Your task to perform on an android device: toggle wifi Image 0: 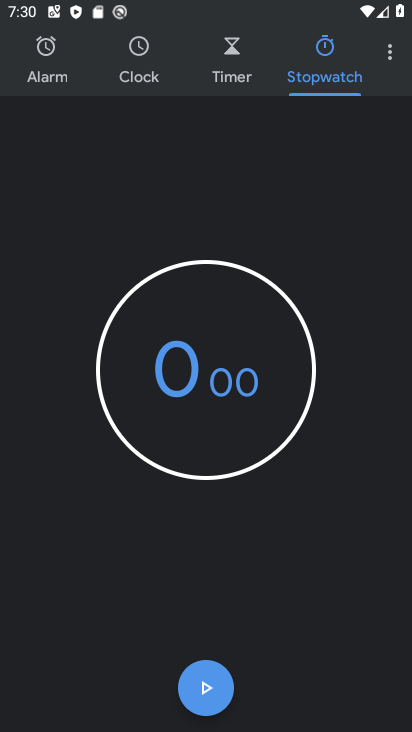
Step 0: press home button
Your task to perform on an android device: toggle wifi Image 1: 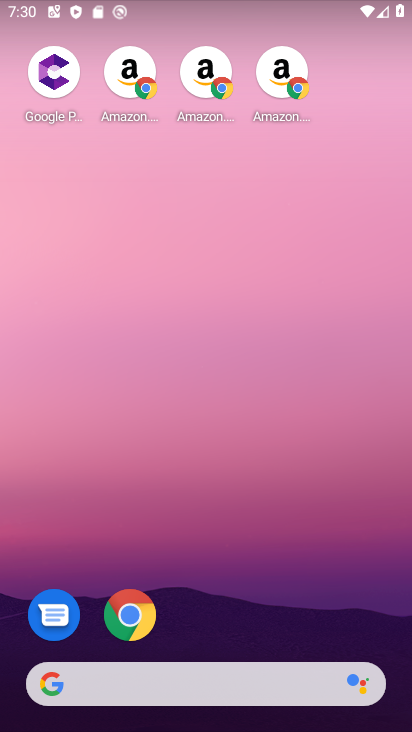
Step 1: drag from (335, 597) to (346, 145)
Your task to perform on an android device: toggle wifi Image 2: 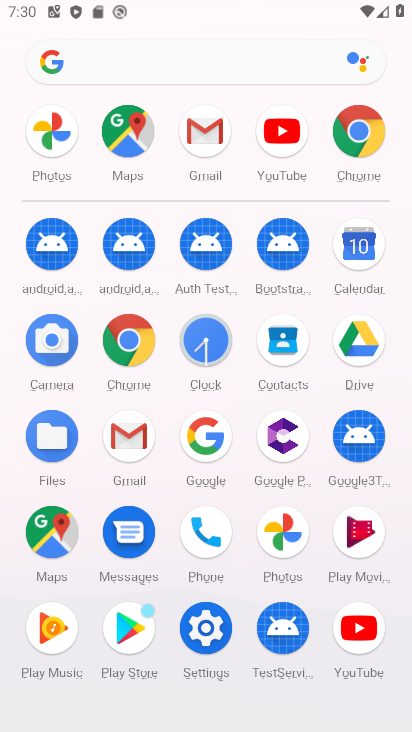
Step 2: click (219, 613)
Your task to perform on an android device: toggle wifi Image 3: 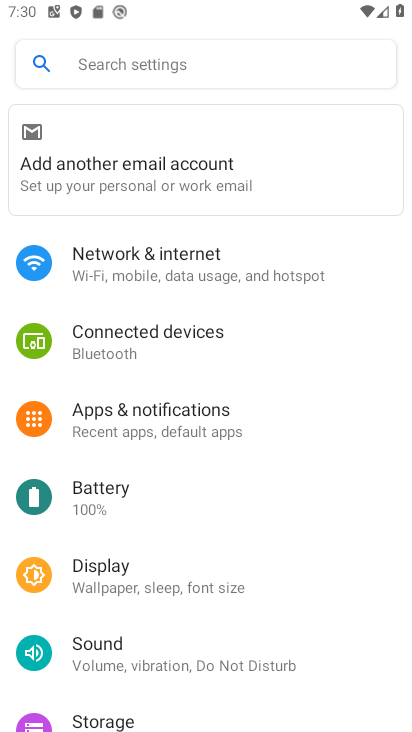
Step 3: click (99, 268)
Your task to perform on an android device: toggle wifi Image 4: 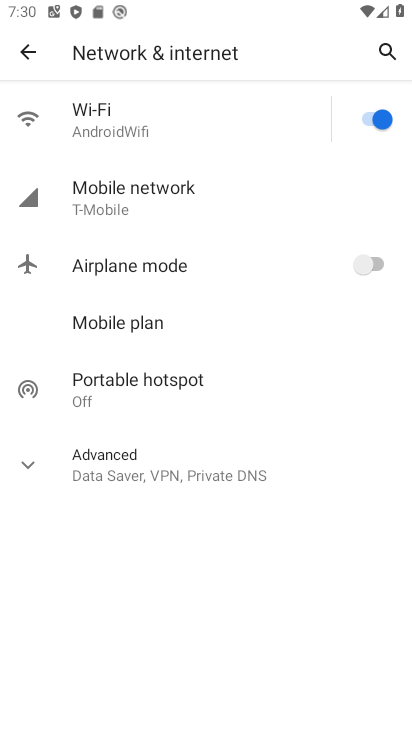
Step 4: click (381, 125)
Your task to perform on an android device: toggle wifi Image 5: 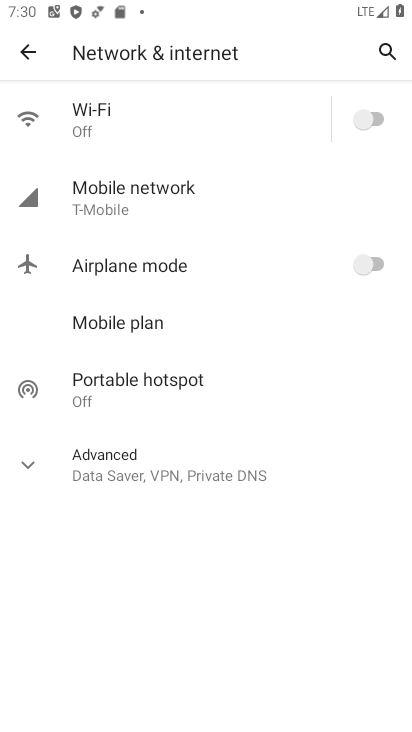
Step 5: task complete